Your task to perform on an android device: Go to Android settings Image 0: 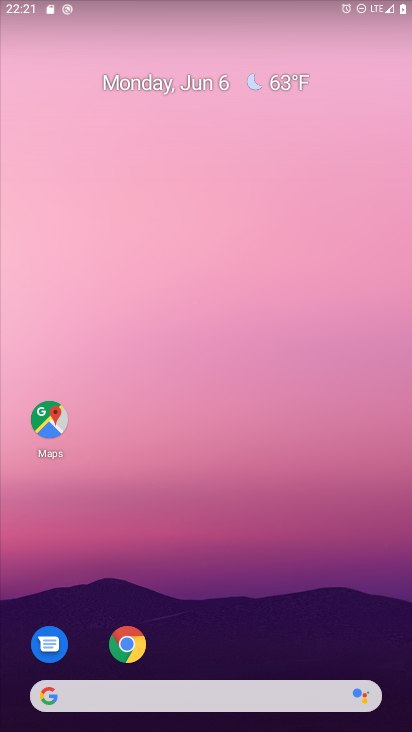
Step 0: drag from (269, 714) to (196, 240)
Your task to perform on an android device: Go to Android settings Image 1: 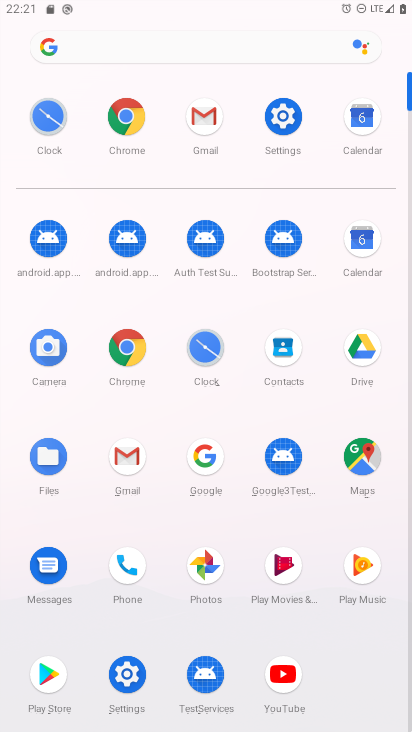
Step 1: click (282, 130)
Your task to perform on an android device: Go to Android settings Image 2: 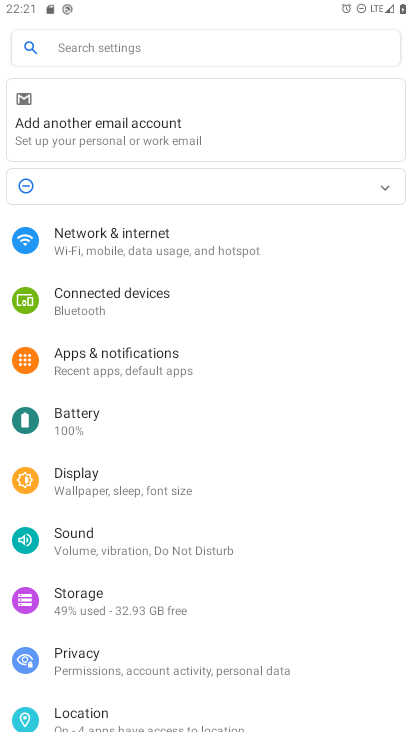
Step 2: click (105, 41)
Your task to perform on an android device: Go to Android settings Image 3: 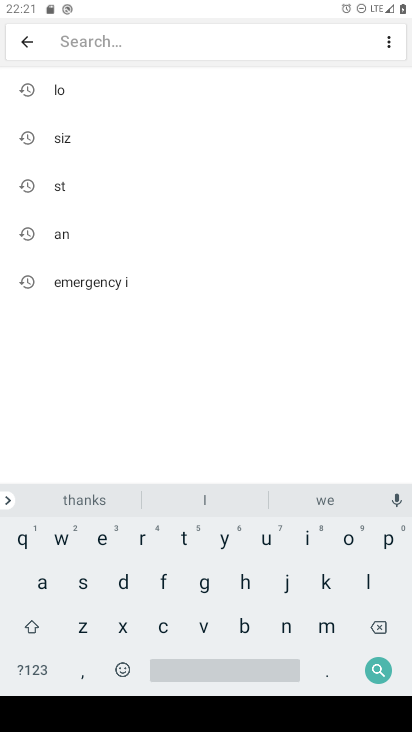
Step 3: click (50, 580)
Your task to perform on an android device: Go to Android settings Image 4: 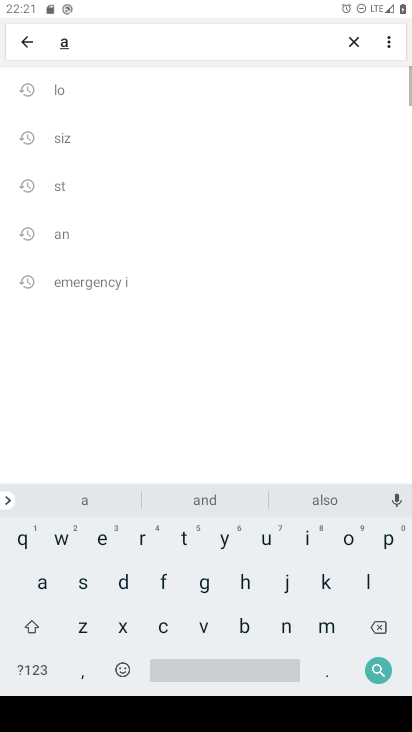
Step 4: click (287, 622)
Your task to perform on an android device: Go to Android settings Image 5: 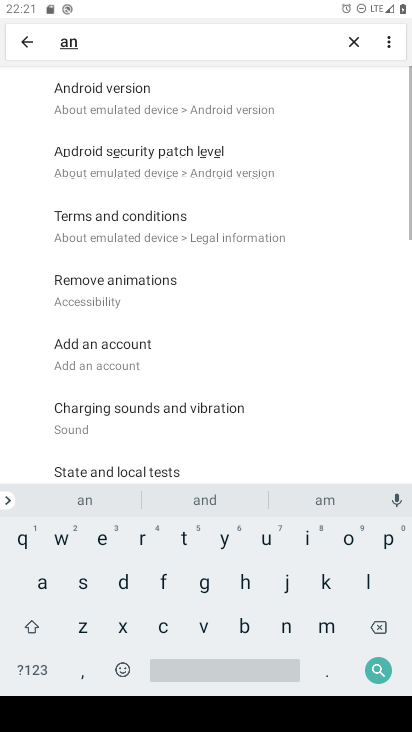
Step 5: click (133, 114)
Your task to perform on an android device: Go to Android settings Image 6: 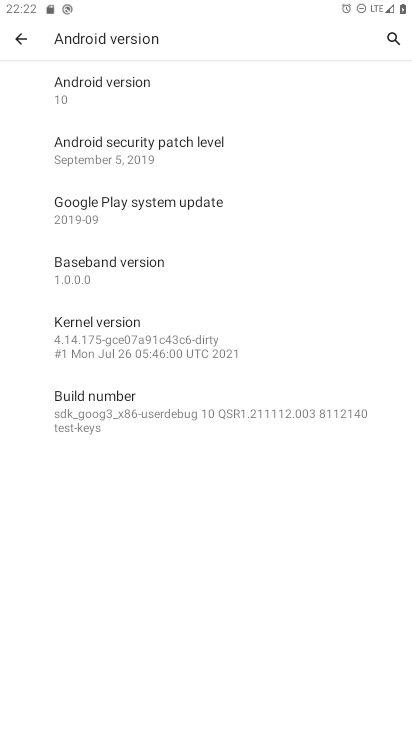
Step 6: task complete